Your task to perform on an android device: toggle improve location accuracy Image 0: 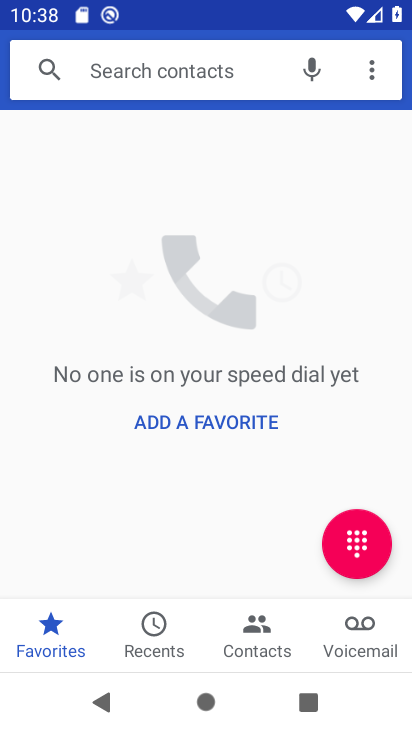
Step 0: press home button
Your task to perform on an android device: toggle improve location accuracy Image 1: 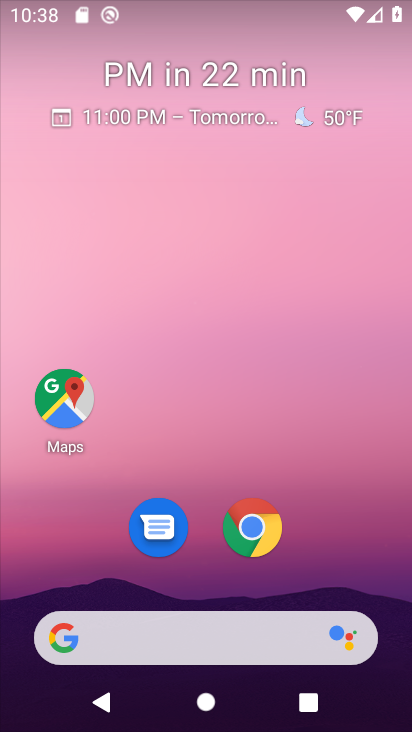
Step 1: drag from (340, 512) to (271, 3)
Your task to perform on an android device: toggle improve location accuracy Image 2: 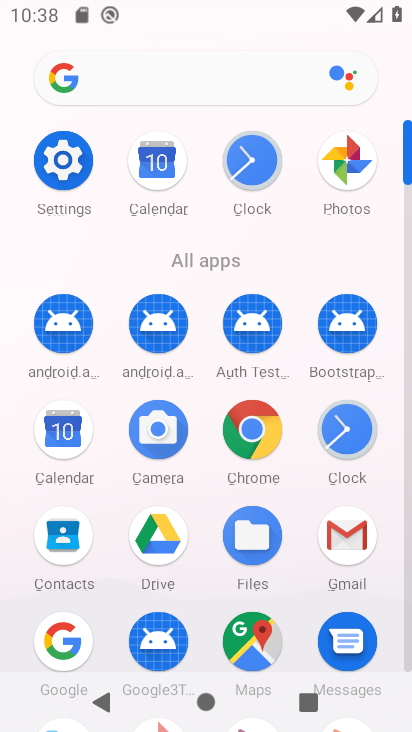
Step 2: click (47, 153)
Your task to perform on an android device: toggle improve location accuracy Image 3: 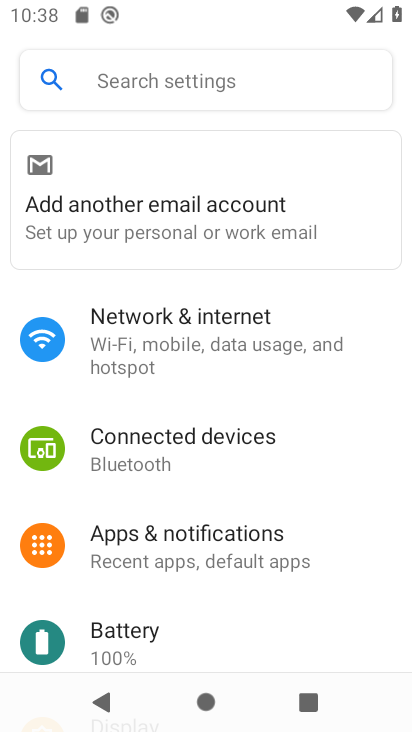
Step 3: drag from (227, 595) to (196, 203)
Your task to perform on an android device: toggle improve location accuracy Image 4: 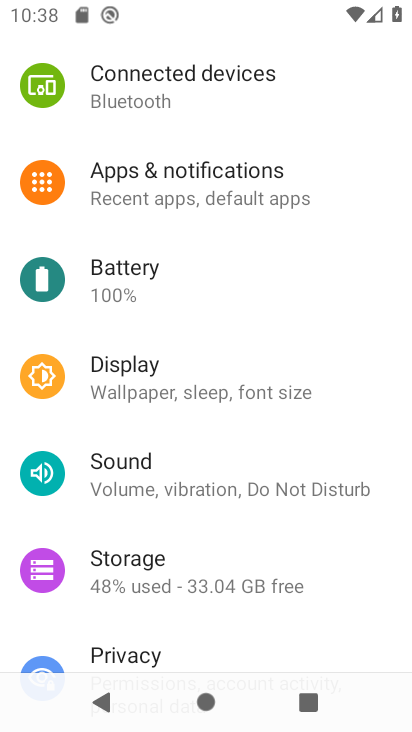
Step 4: drag from (225, 594) to (193, 159)
Your task to perform on an android device: toggle improve location accuracy Image 5: 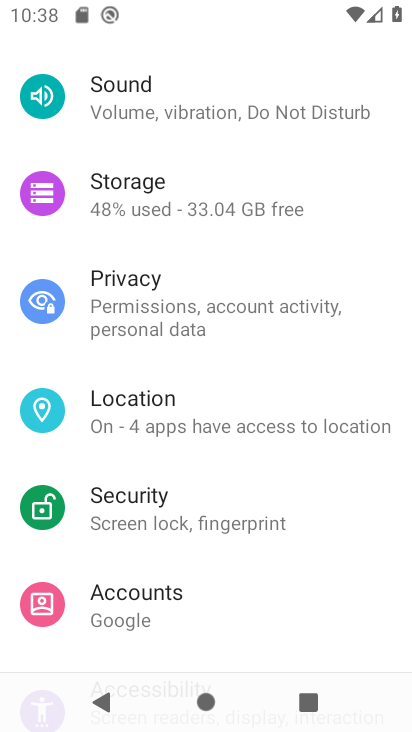
Step 5: click (141, 429)
Your task to perform on an android device: toggle improve location accuracy Image 6: 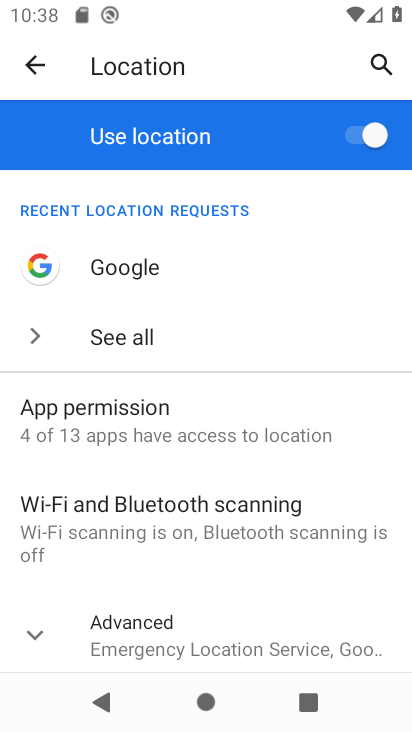
Step 6: drag from (219, 595) to (202, 438)
Your task to perform on an android device: toggle improve location accuracy Image 7: 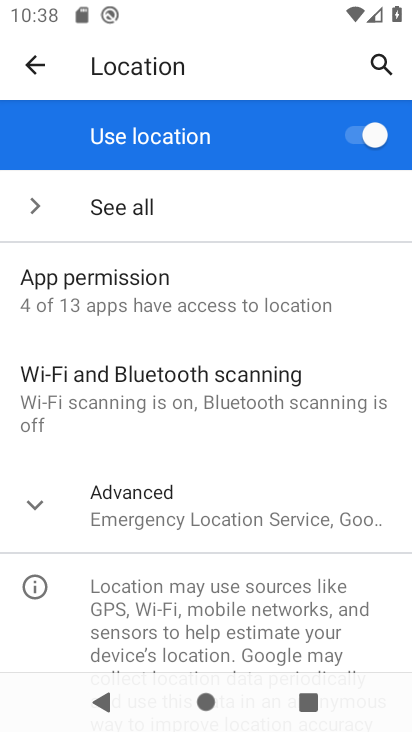
Step 7: click (212, 499)
Your task to perform on an android device: toggle improve location accuracy Image 8: 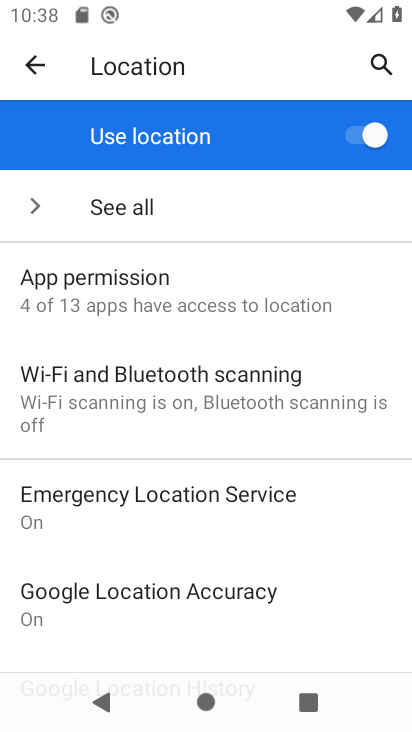
Step 8: drag from (257, 602) to (232, 457)
Your task to perform on an android device: toggle improve location accuracy Image 9: 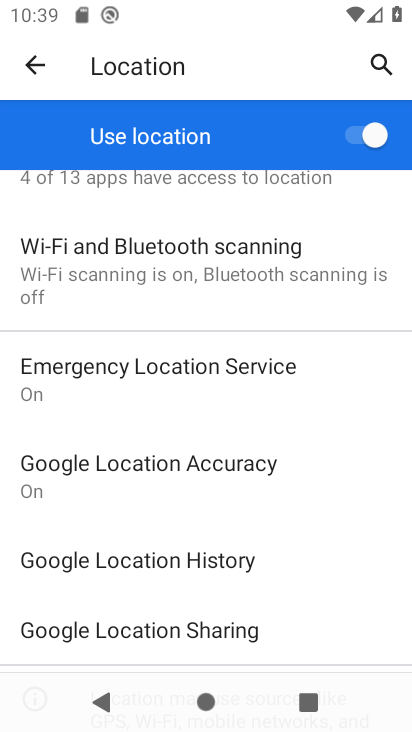
Step 9: click (139, 474)
Your task to perform on an android device: toggle improve location accuracy Image 10: 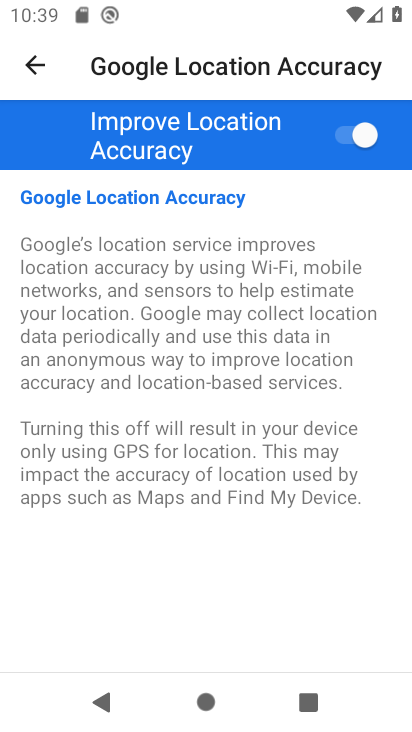
Step 10: click (360, 138)
Your task to perform on an android device: toggle improve location accuracy Image 11: 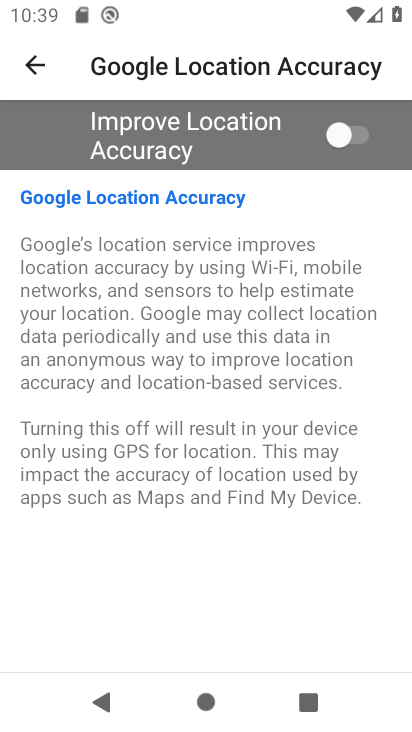
Step 11: task complete